Your task to perform on an android device: all mails in gmail Image 0: 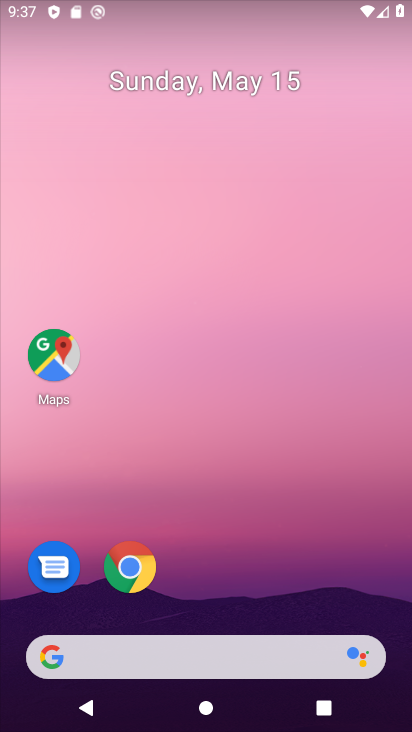
Step 0: drag from (280, 560) to (281, 124)
Your task to perform on an android device: all mails in gmail Image 1: 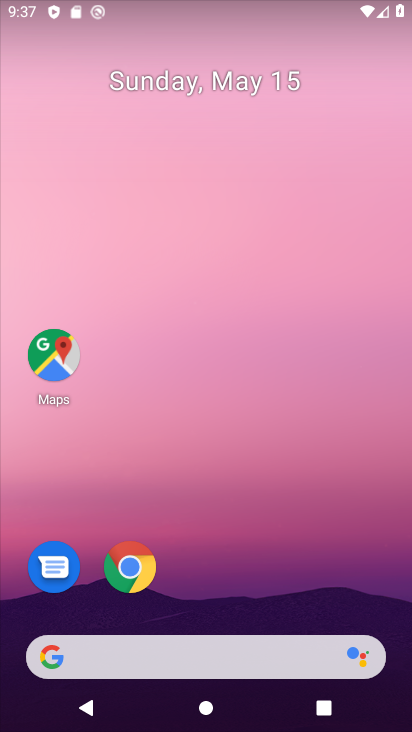
Step 1: drag from (258, 551) to (254, 100)
Your task to perform on an android device: all mails in gmail Image 2: 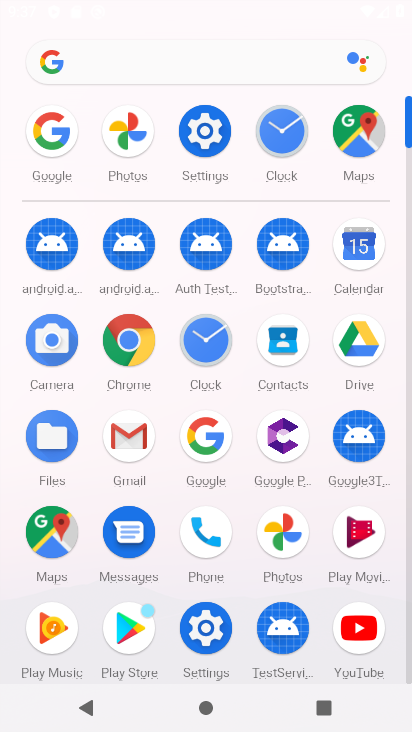
Step 2: click (136, 132)
Your task to perform on an android device: all mails in gmail Image 3: 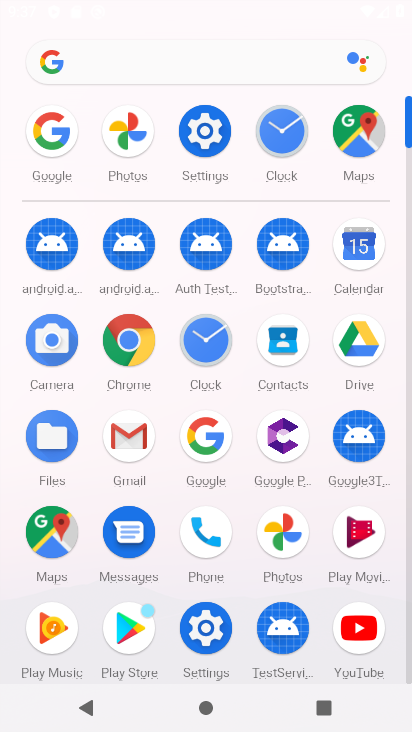
Step 3: click (128, 435)
Your task to perform on an android device: all mails in gmail Image 4: 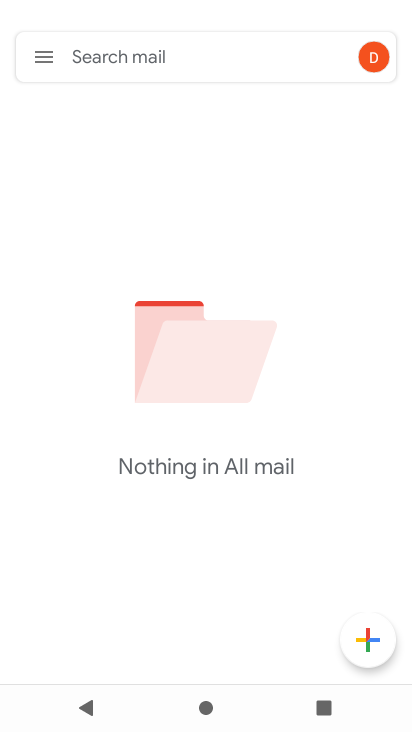
Step 4: click (48, 67)
Your task to perform on an android device: all mails in gmail Image 5: 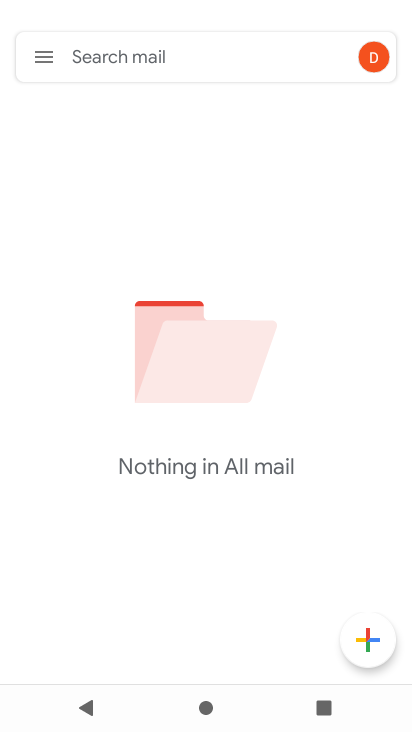
Step 5: task complete
Your task to perform on an android device: all mails in gmail Image 6: 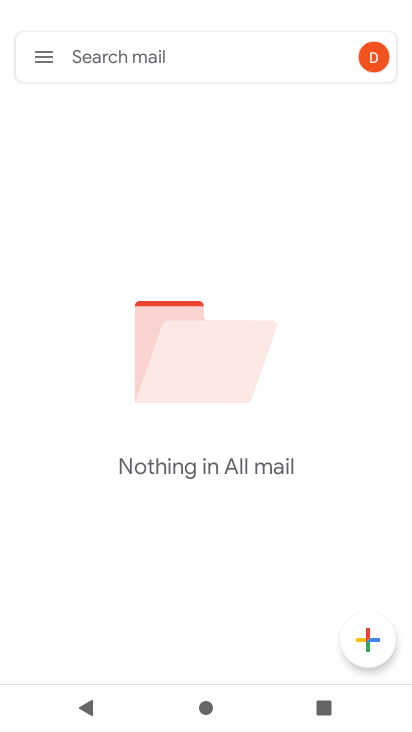
Step 6: click (340, 216)
Your task to perform on an android device: all mails in gmail Image 7: 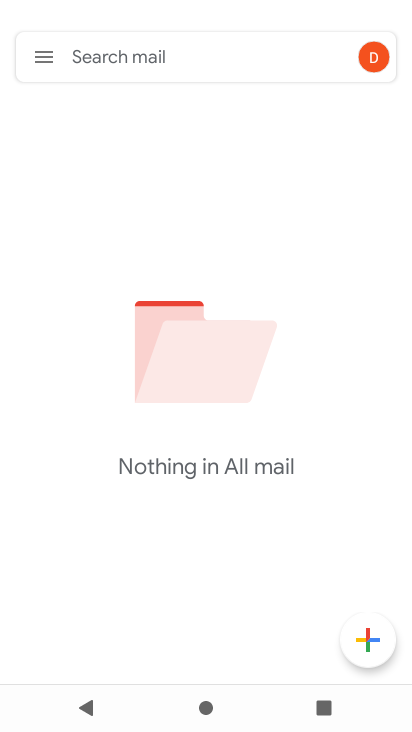
Step 7: task complete